Your task to perform on an android device: open wifi settings Image 0: 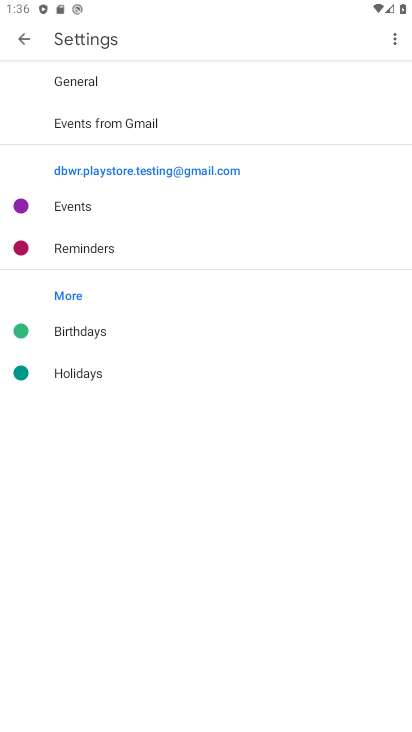
Step 0: press home button
Your task to perform on an android device: open wifi settings Image 1: 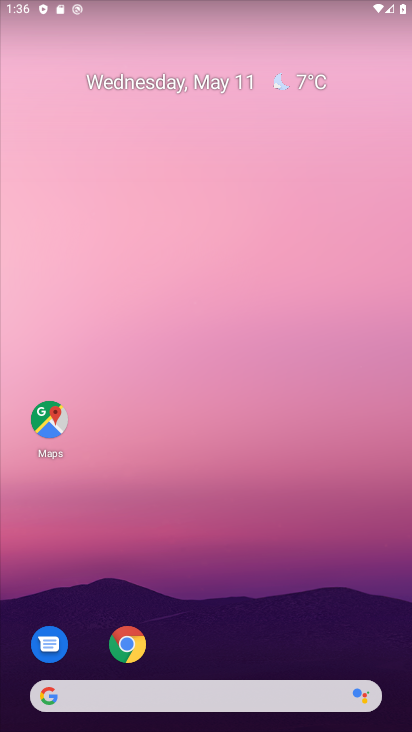
Step 1: task complete